Your task to perform on an android device: clear history in the chrome app Image 0: 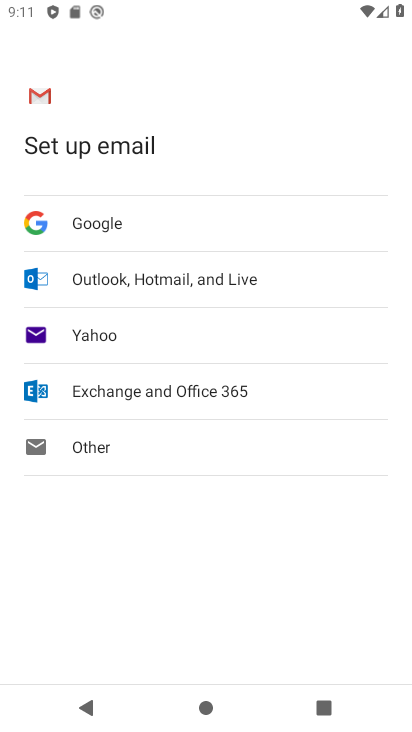
Step 0: press back button
Your task to perform on an android device: clear history in the chrome app Image 1: 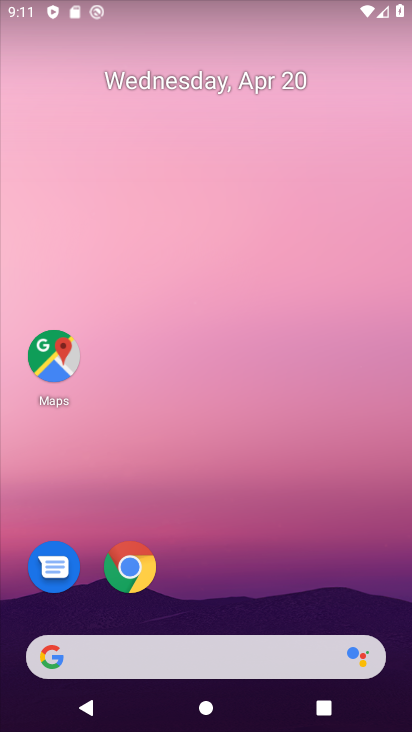
Step 1: click (128, 558)
Your task to perform on an android device: clear history in the chrome app Image 2: 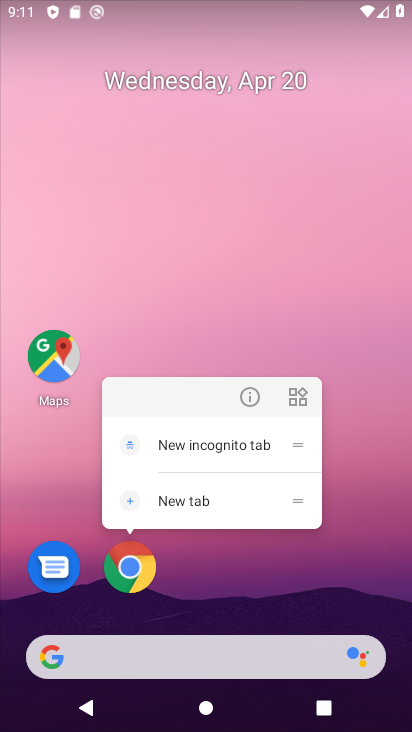
Step 2: click (137, 566)
Your task to perform on an android device: clear history in the chrome app Image 3: 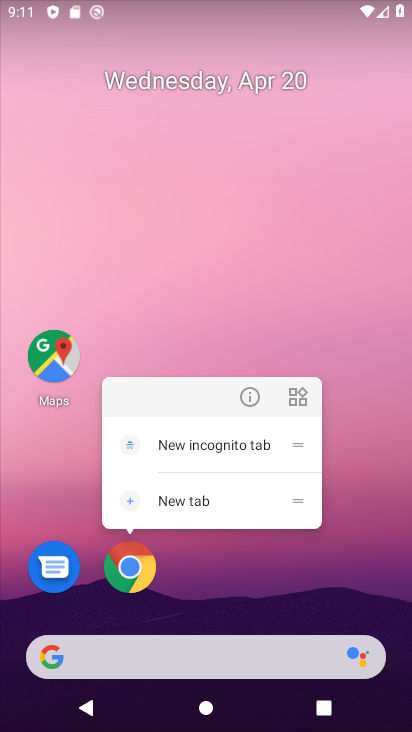
Step 3: click (138, 573)
Your task to perform on an android device: clear history in the chrome app Image 4: 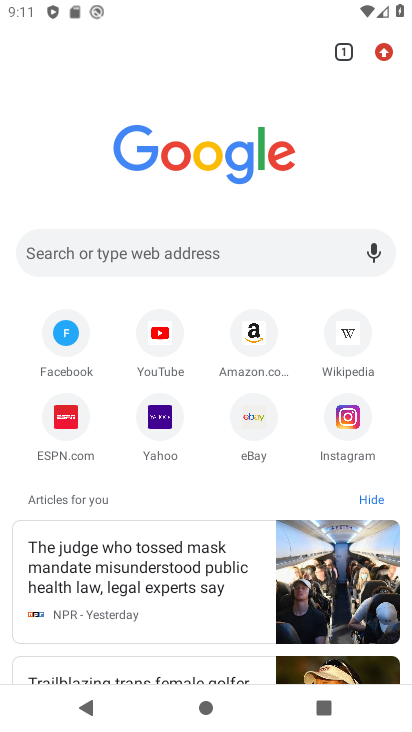
Step 4: drag from (389, 50) to (211, 356)
Your task to perform on an android device: clear history in the chrome app Image 5: 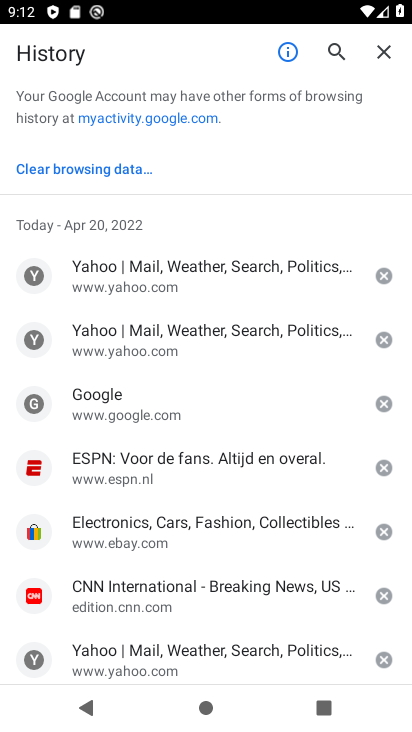
Step 5: click (97, 169)
Your task to perform on an android device: clear history in the chrome app Image 6: 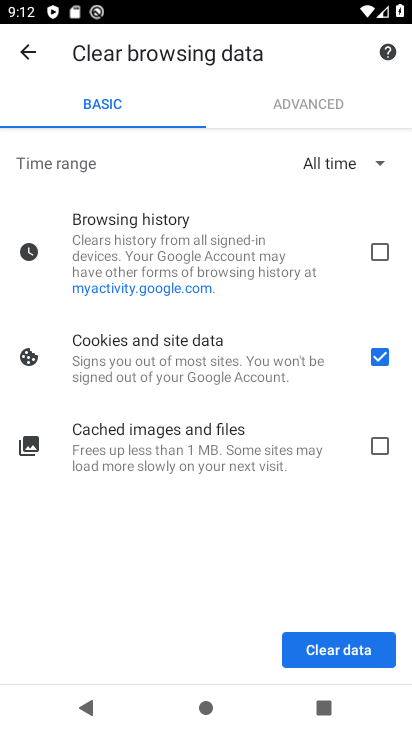
Step 6: click (374, 253)
Your task to perform on an android device: clear history in the chrome app Image 7: 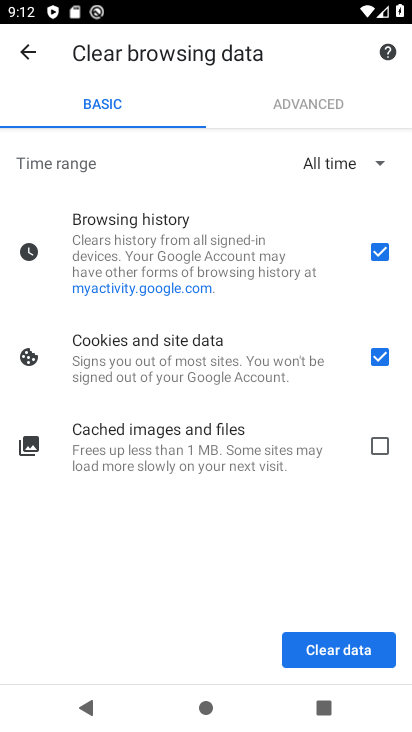
Step 7: click (328, 655)
Your task to perform on an android device: clear history in the chrome app Image 8: 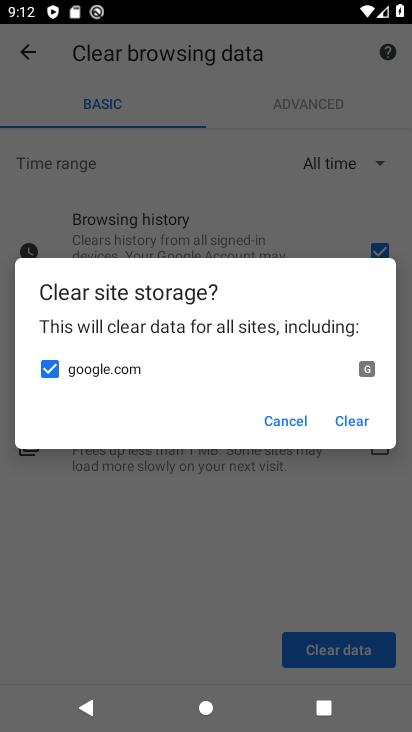
Step 8: click (358, 428)
Your task to perform on an android device: clear history in the chrome app Image 9: 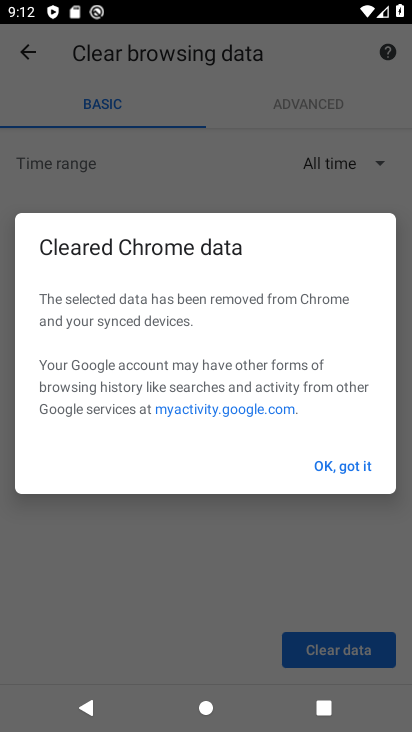
Step 9: click (349, 461)
Your task to perform on an android device: clear history in the chrome app Image 10: 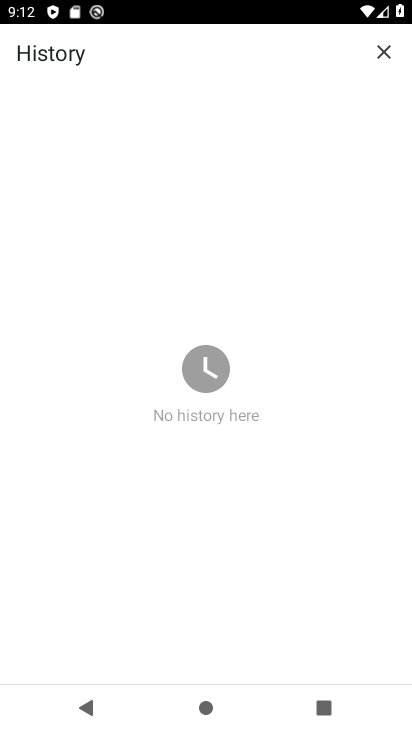
Step 10: task complete